Your task to perform on an android device: Open Yahoo.com Image 0: 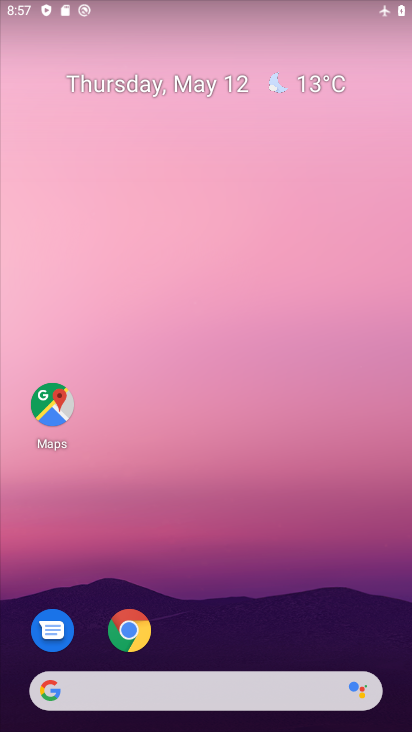
Step 0: click (148, 628)
Your task to perform on an android device: Open Yahoo.com Image 1: 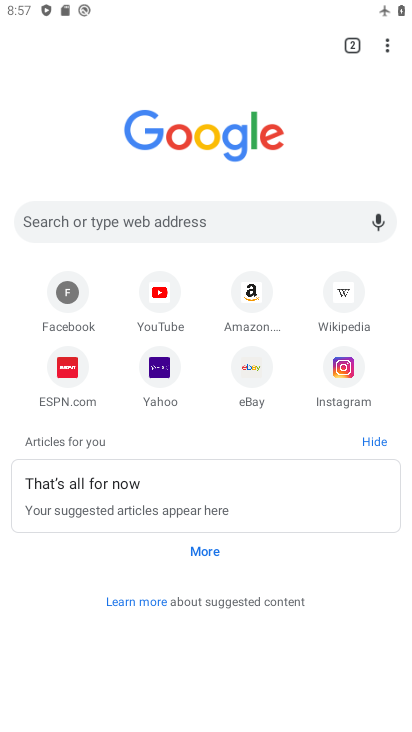
Step 1: click (170, 376)
Your task to perform on an android device: Open Yahoo.com Image 2: 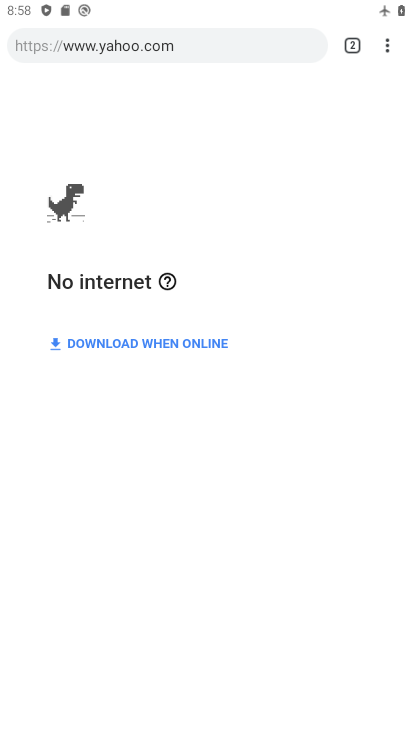
Step 2: task complete